Your task to perform on an android device: Open display settings Image 0: 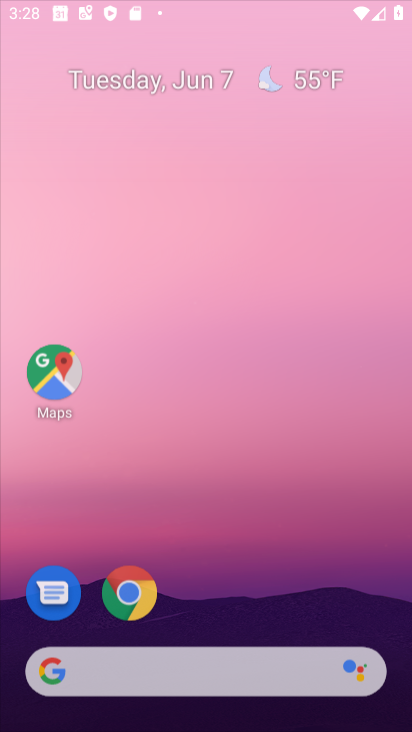
Step 0: drag from (235, 639) to (275, 42)
Your task to perform on an android device: Open display settings Image 1: 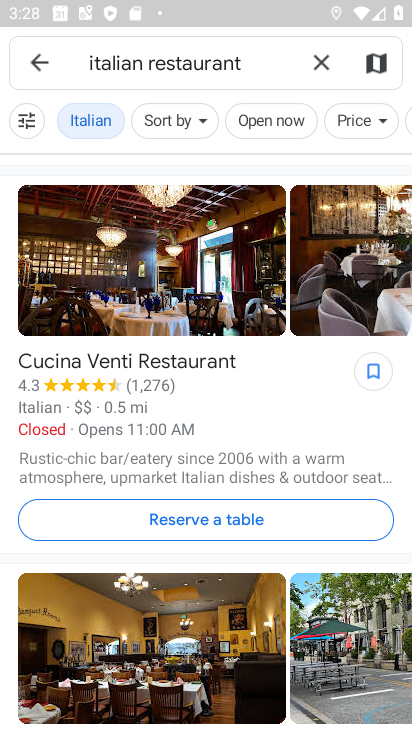
Step 1: press home button
Your task to perform on an android device: Open display settings Image 2: 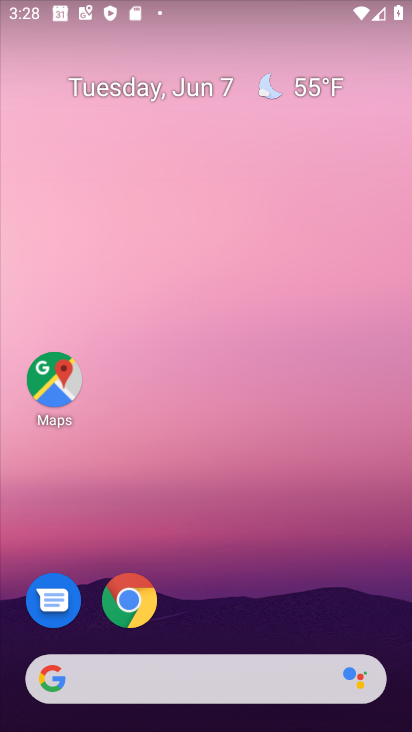
Step 2: drag from (196, 629) to (228, 73)
Your task to perform on an android device: Open display settings Image 3: 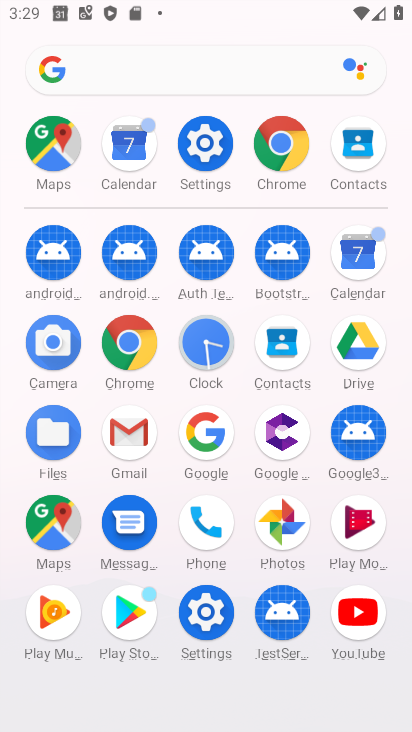
Step 3: click (207, 624)
Your task to perform on an android device: Open display settings Image 4: 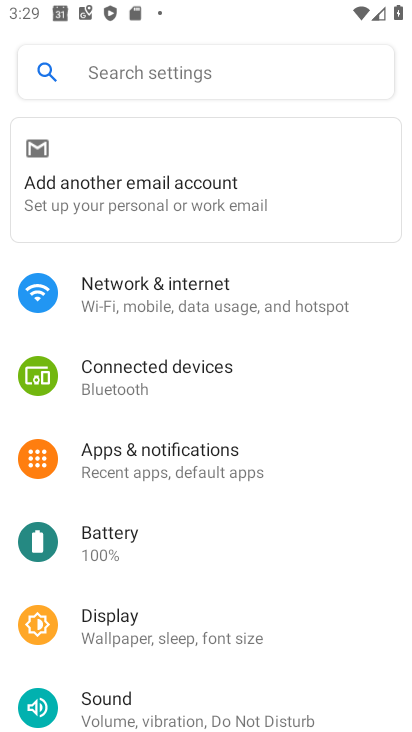
Step 4: click (90, 634)
Your task to perform on an android device: Open display settings Image 5: 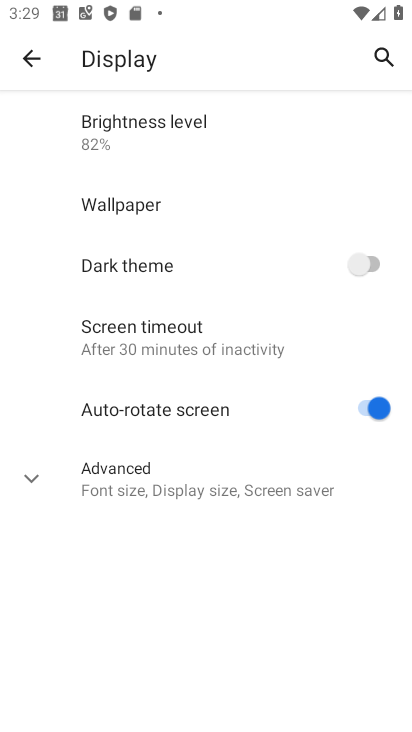
Step 5: task complete